Your task to perform on an android device: all mails in gmail Image 0: 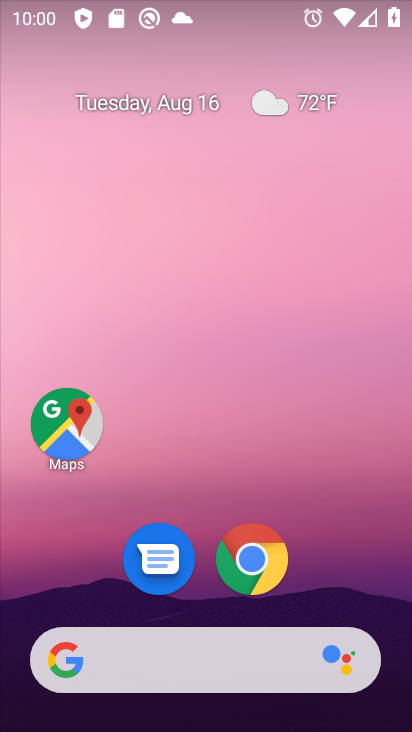
Step 0: drag from (173, 673) to (228, 164)
Your task to perform on an android device: all mails in gmail Image 1: 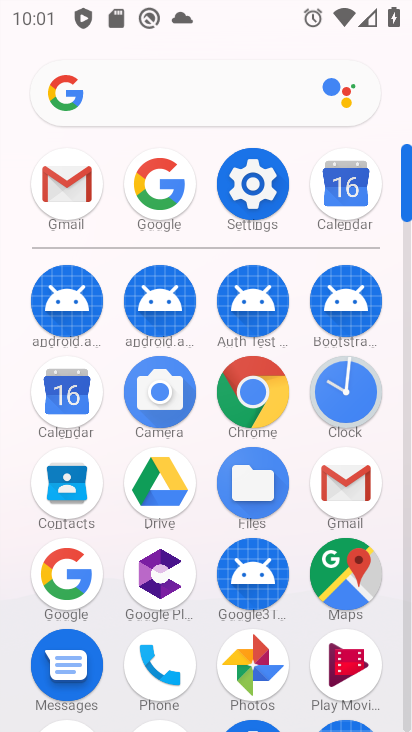
Step 1: click (69, 184)
Your task to perform on an android device: all mails in gmail Image 2: 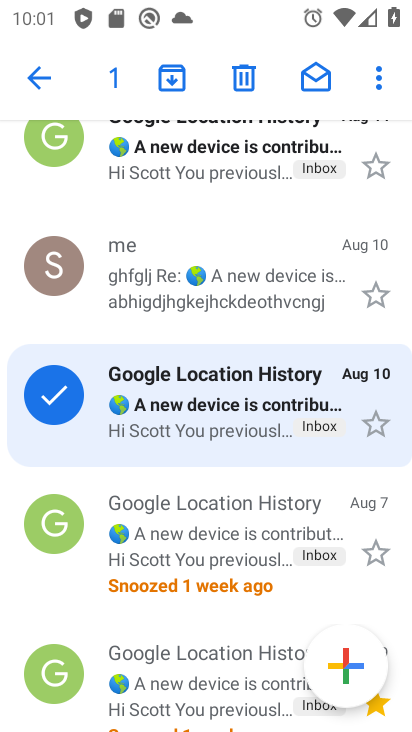
Step 2: press back button
Your task to perform on an android device: all mails in gmail Image 3: 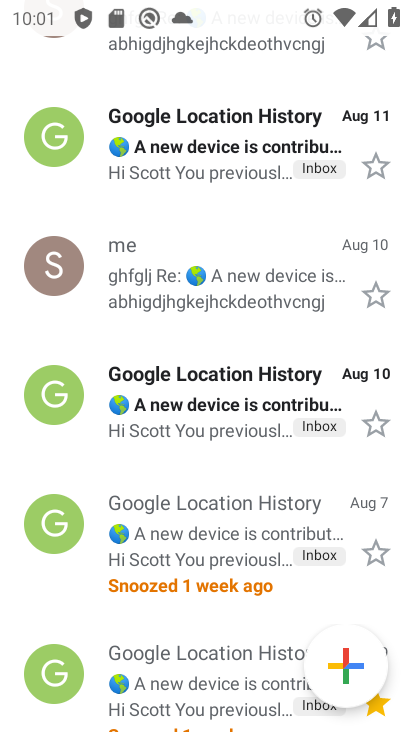
Step 3: drag from (243, 207) to (207, 438)
Your task to perform on an android device: all mails in gmail Image 4: 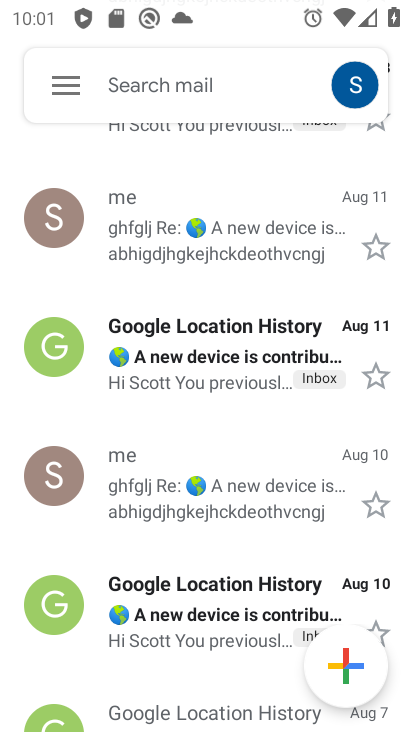
Step 4: drag from (188, 177) to (180, 567)
Your task to perform on an android device: all mails in gmail Image 5: 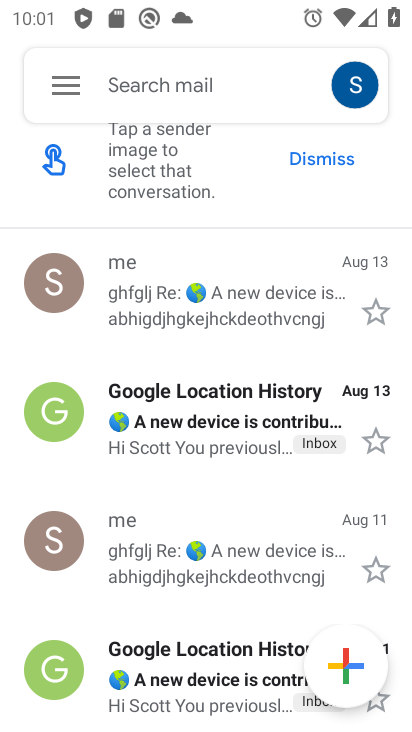
Step 5: click (63, 88)
Your task to perform on an android device: all mails in gmail Image 6: 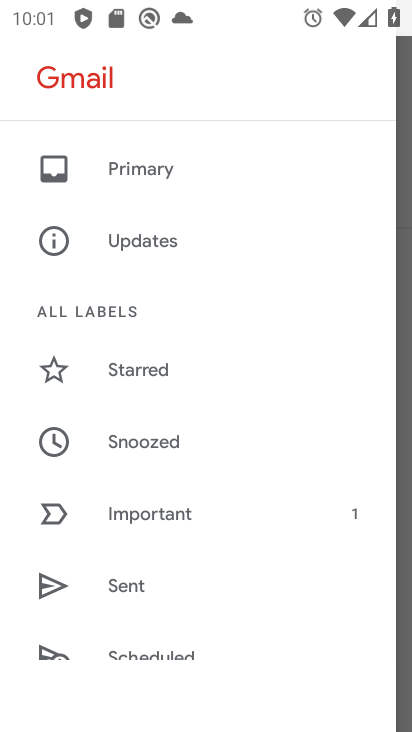
Step 6: drag from (165, 560) to (263, 429)
Your task to perform on an android device: all mails in gmail Image 7: 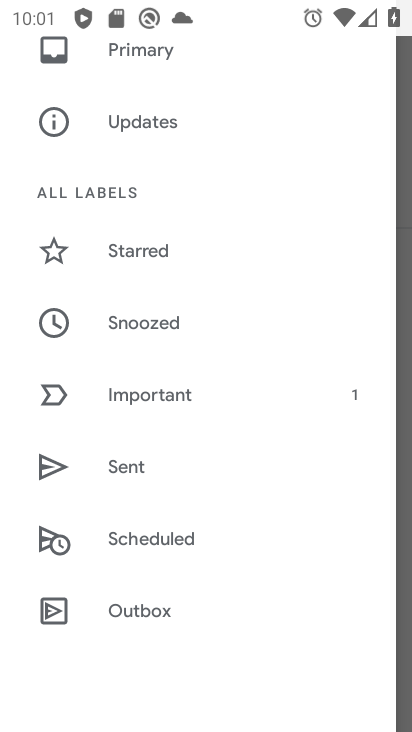
Step 7: drag from (203, 569) to (261, 451)
Your task to perform on an android device: all mails in gmail Image 8: 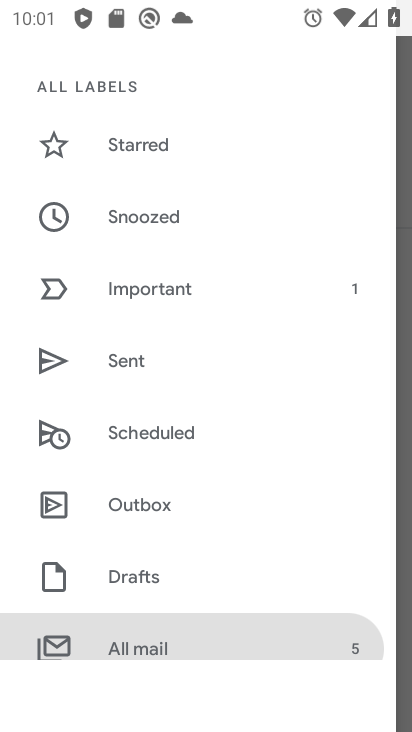
Step 8: drag from (191, 562) to (286, 362)
Your task to perform on an android device: all mails in gmail Image 9: 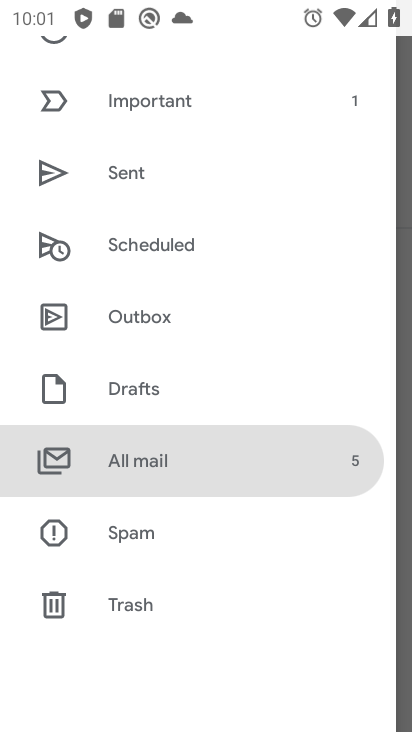
Step 9: click (180, 453)
Your task to perform on an android device: all mails in gmail Image 10: 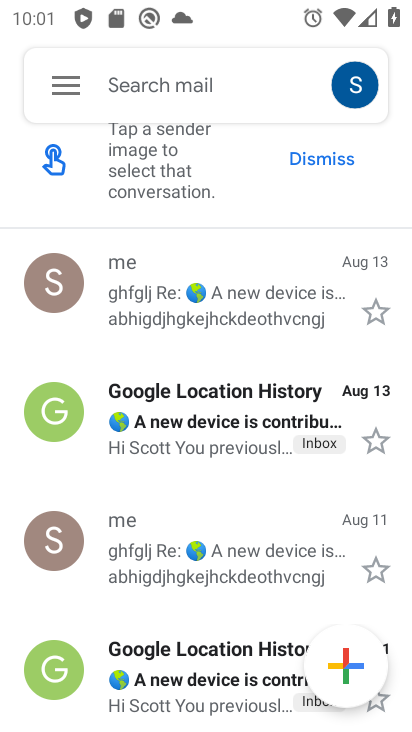
Step 10: task complete